Your task to perform on an android device: turn off notifications in google photos Image 0: 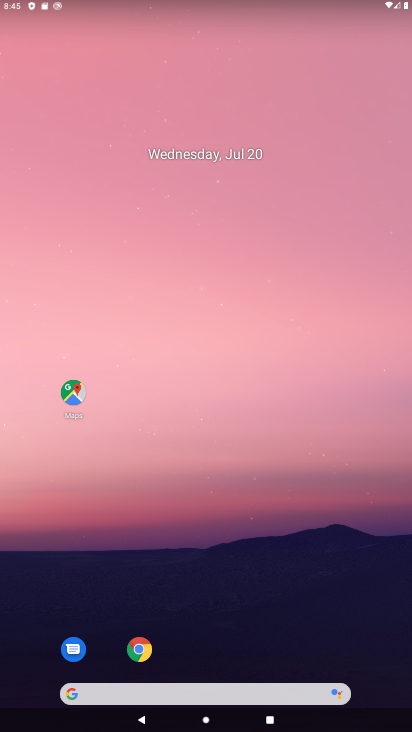
Step 0: drag from (231, 661) to (172, 162)
Your task to perform on an android device: turn off notifications in google photos Image 1: 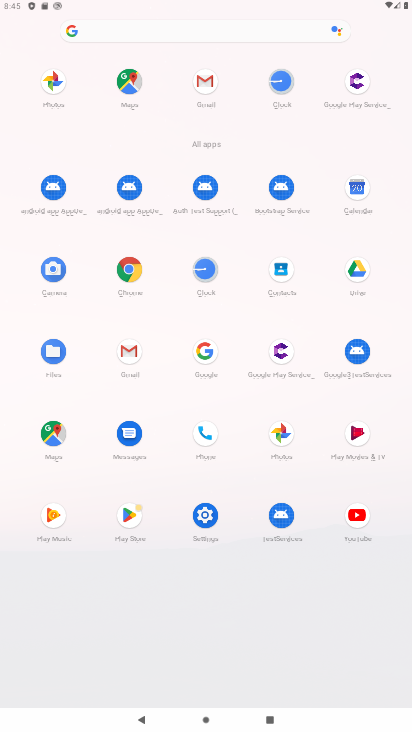
Step 1: click (40, 79)
Your task to perform on an android device: turn off notifications in google photos Image 2: 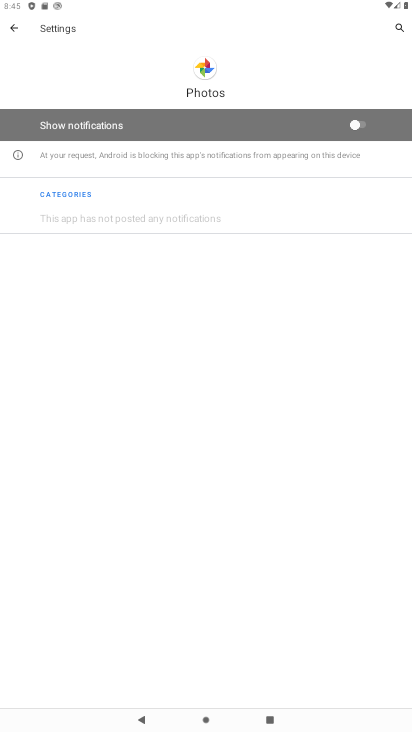
Step 2: task complete